Your task to perform on an android device: check data usage Image 0: 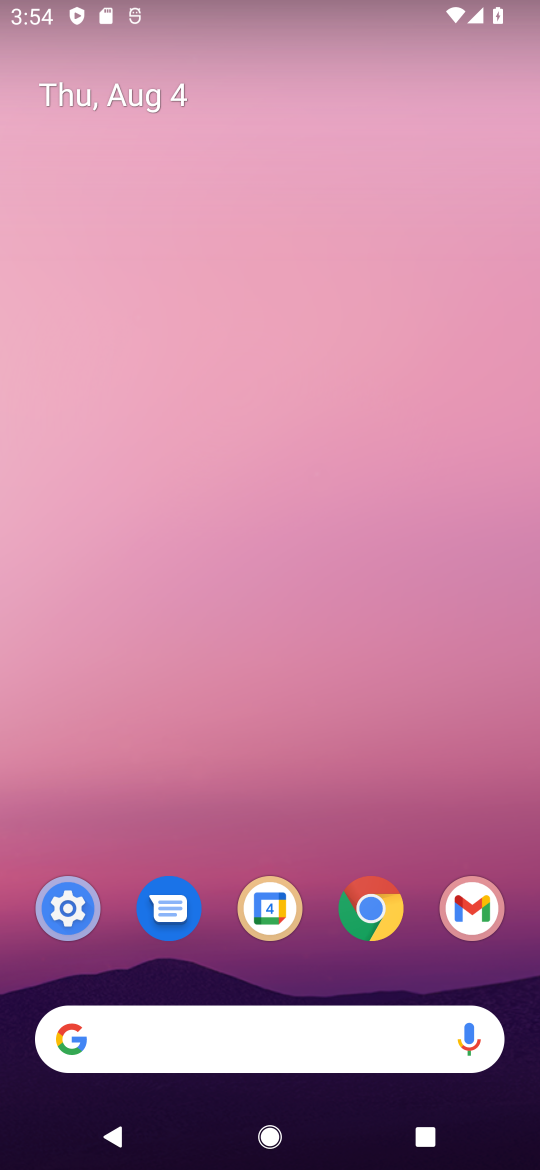
Step 0: click (55, 903)
Your task to perform on an android device: check data usage Image 1: 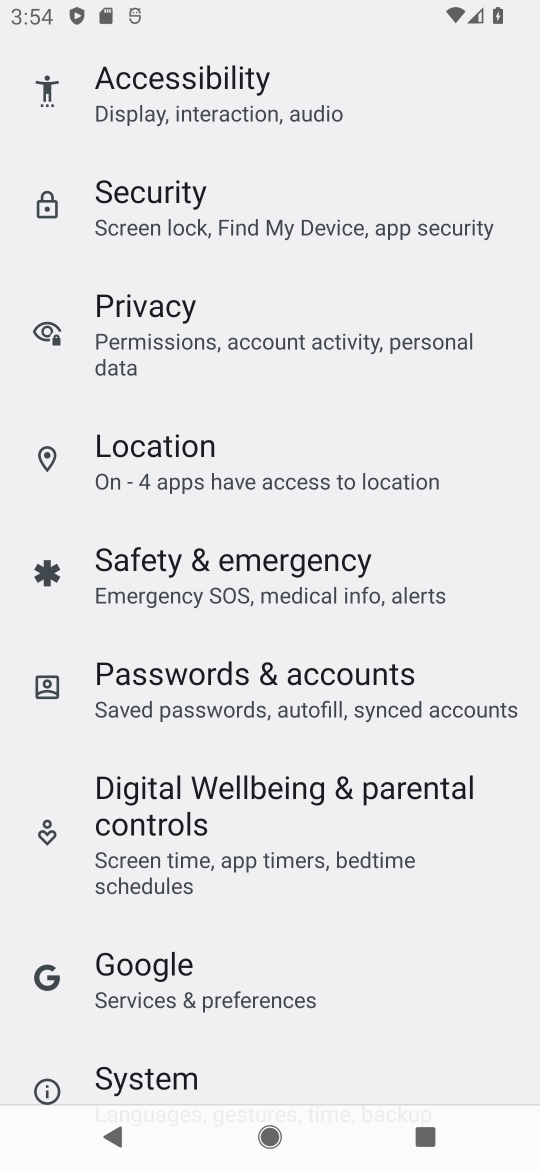
Step 1: drag from (334, 255) to (463, 839)
Your task to perform on an android device: check data usage Image 2: 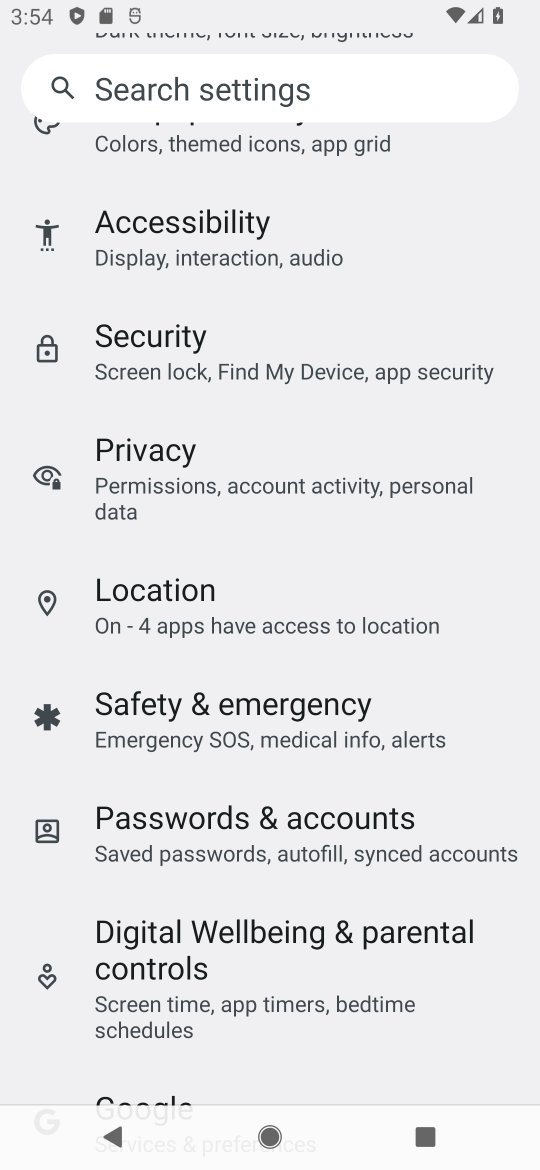
Step 2: drag from (342, 310) to (473, 943)
Your task to perform on an android device: check data usage Image 3: 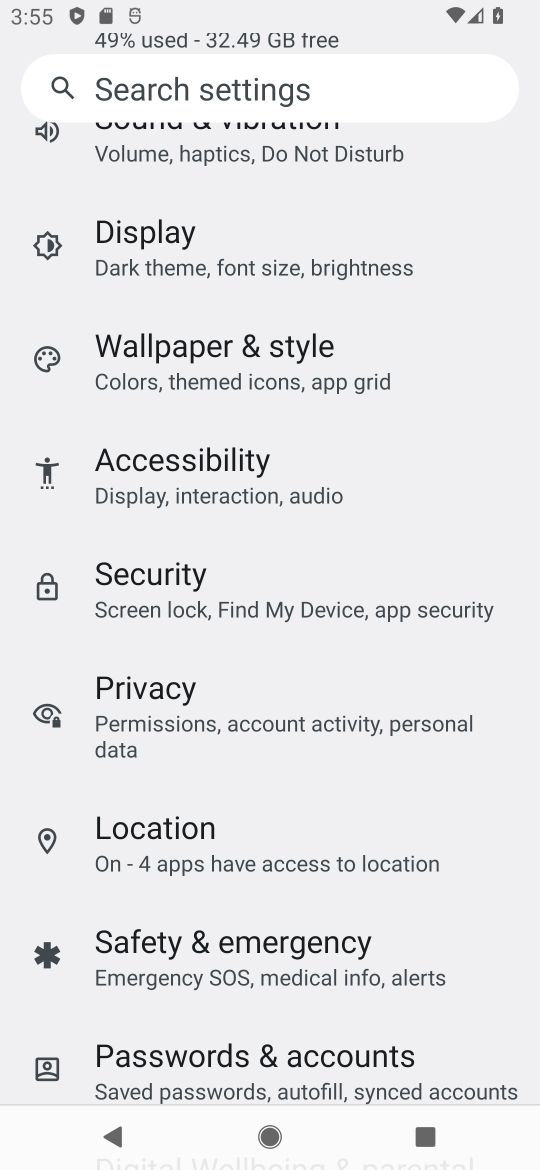
Step 3: drag from (366, 295) to (446, 727)
Your task to perform on an android device: check data usage Image 4: 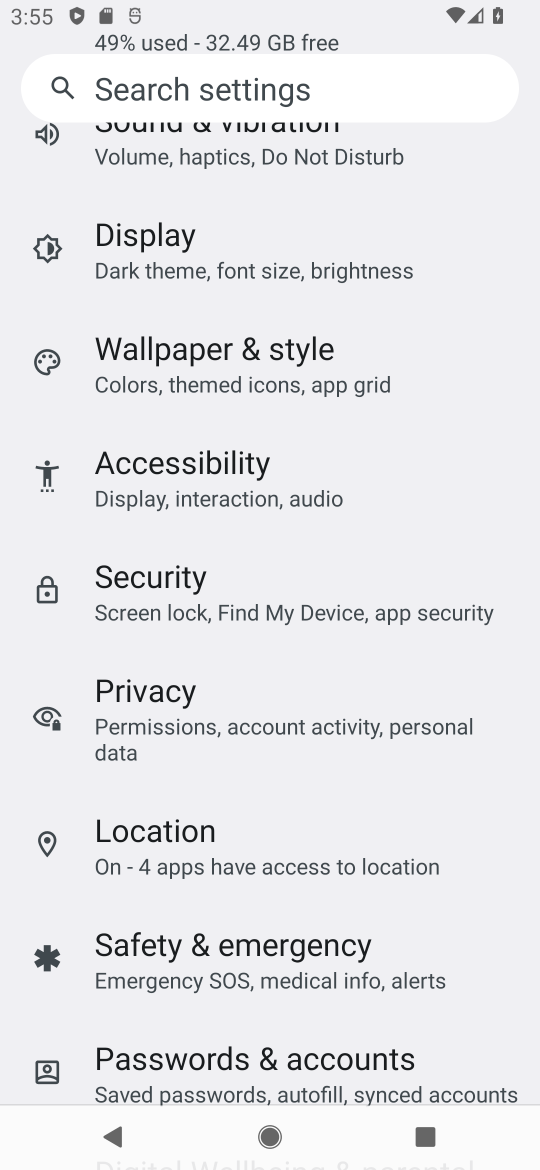
Step 4: drag from (286, 192) to (396, 916)
Your task to perform on an android device: check data usage Image 5: 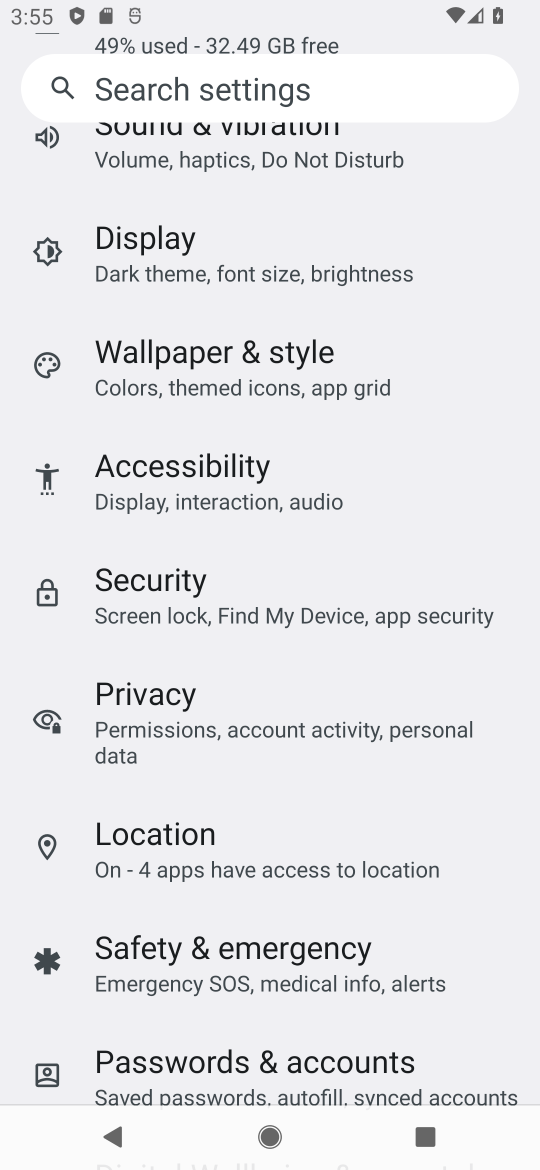
Step 5: drag from (379, 294) to (405, 1046)
Your task to perform on an android device: check data usage Image 6: 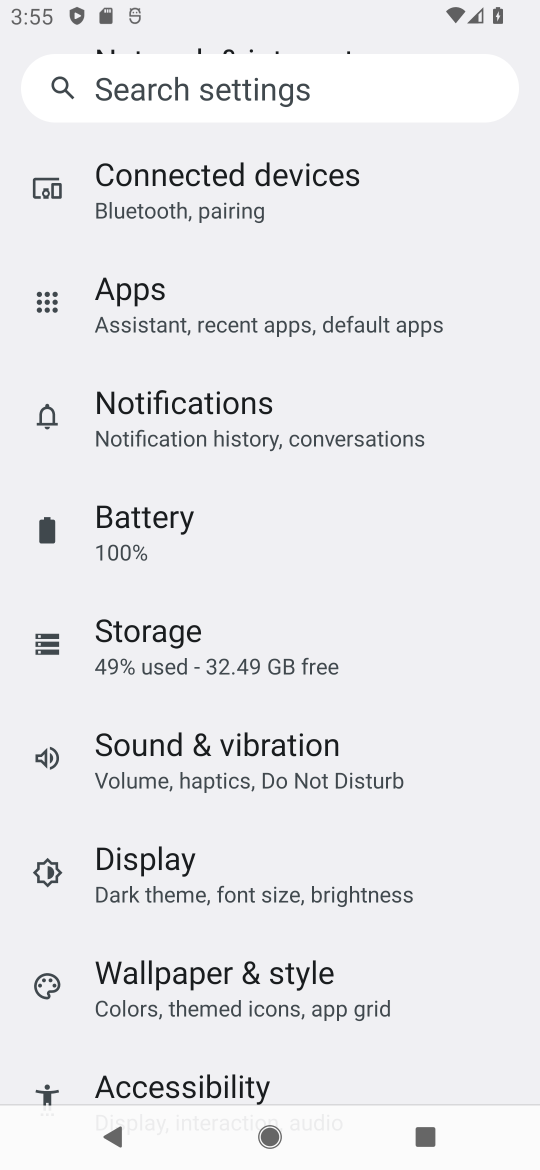
Step 6: drag from (385, 244) to (466, 707)
Your task to perform on an android device: check data usage Image 7: 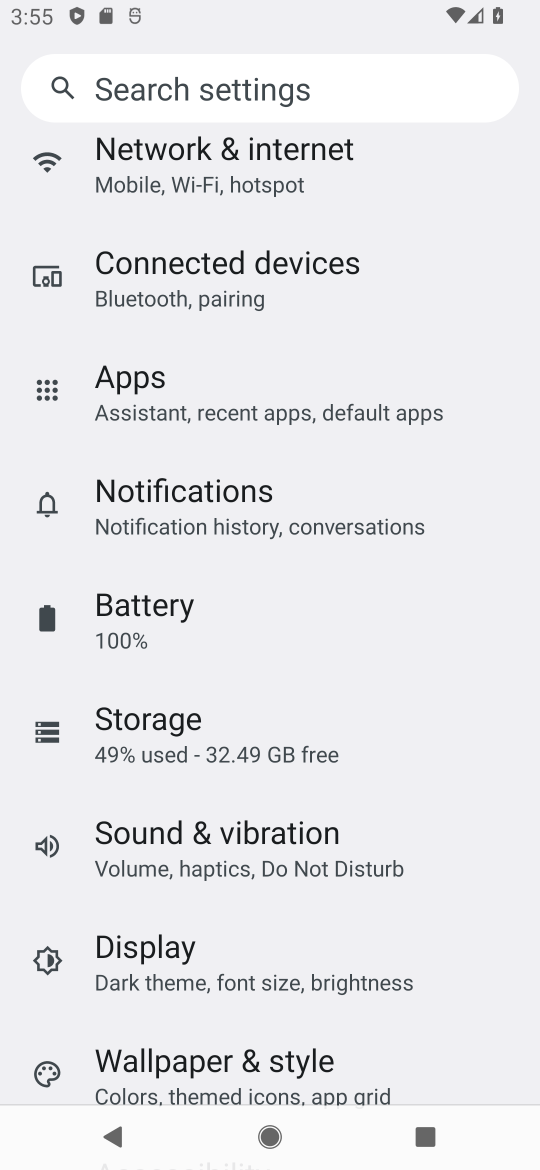
Step 7: click (304, 146)
Your task to perform on an android device: check data usage Image 8: 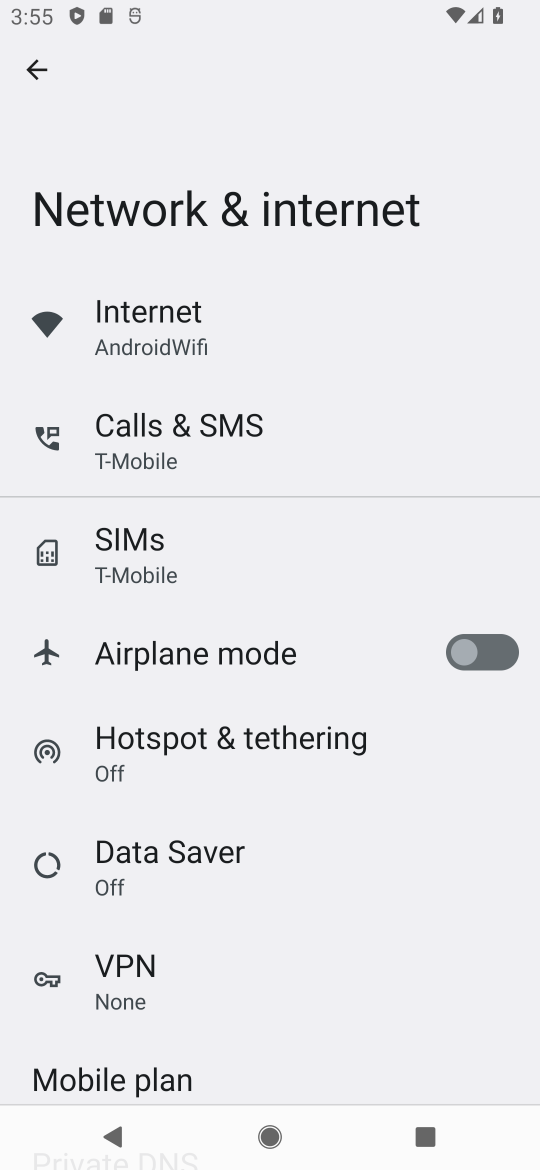
Step 8: click (192, 319)
Your task to perform on an android device: check data usage Image 9: 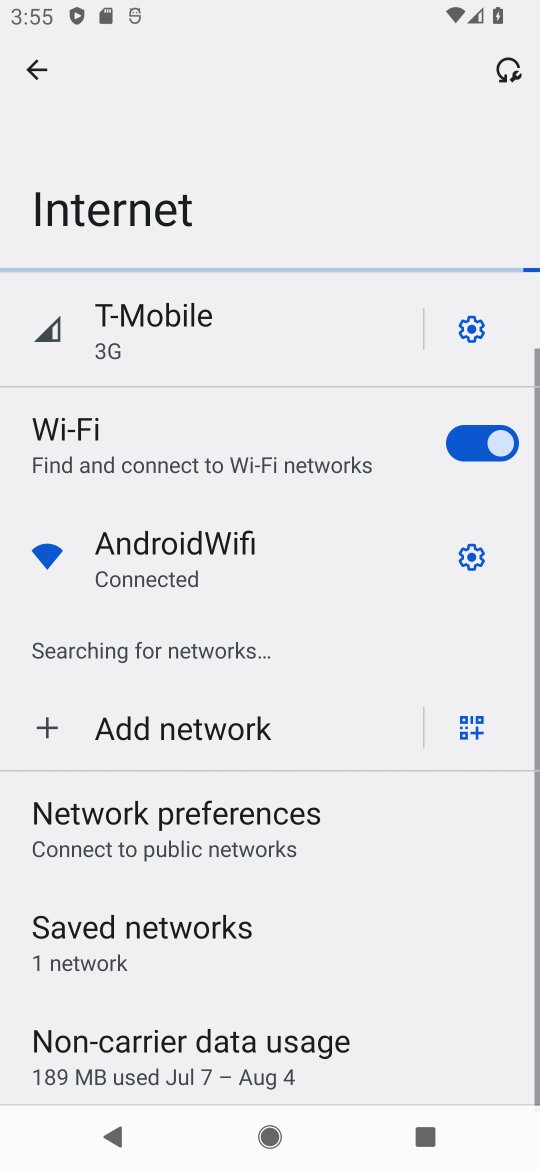
Step 9: click (165, 1043)
Your task to perform on an android device: check data usage Image 10: 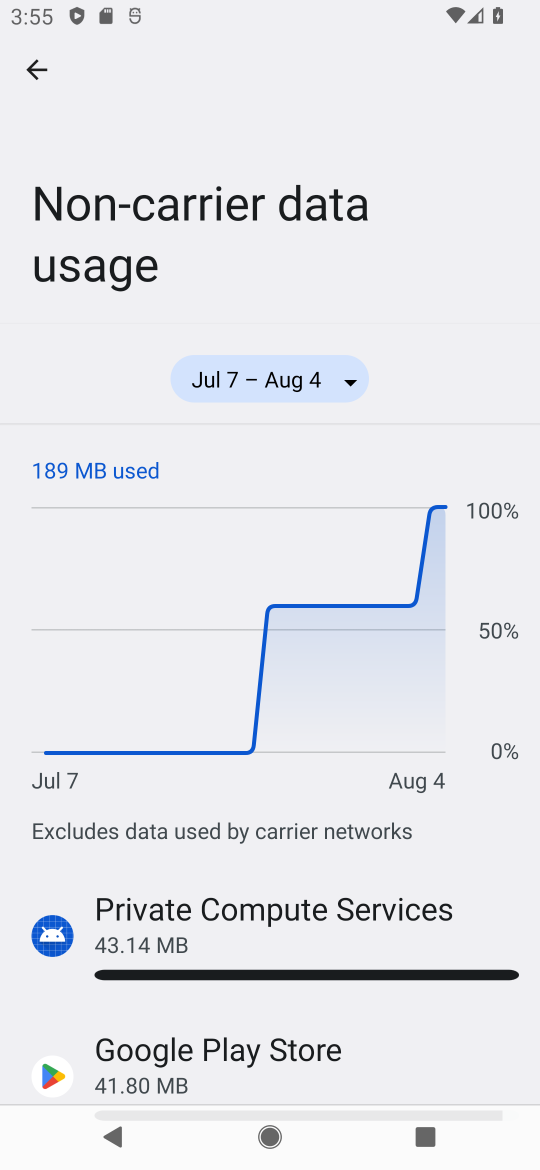
Step 10: task complete